Your task to perform on an android device: Open Maps and search for coffee Image 0: 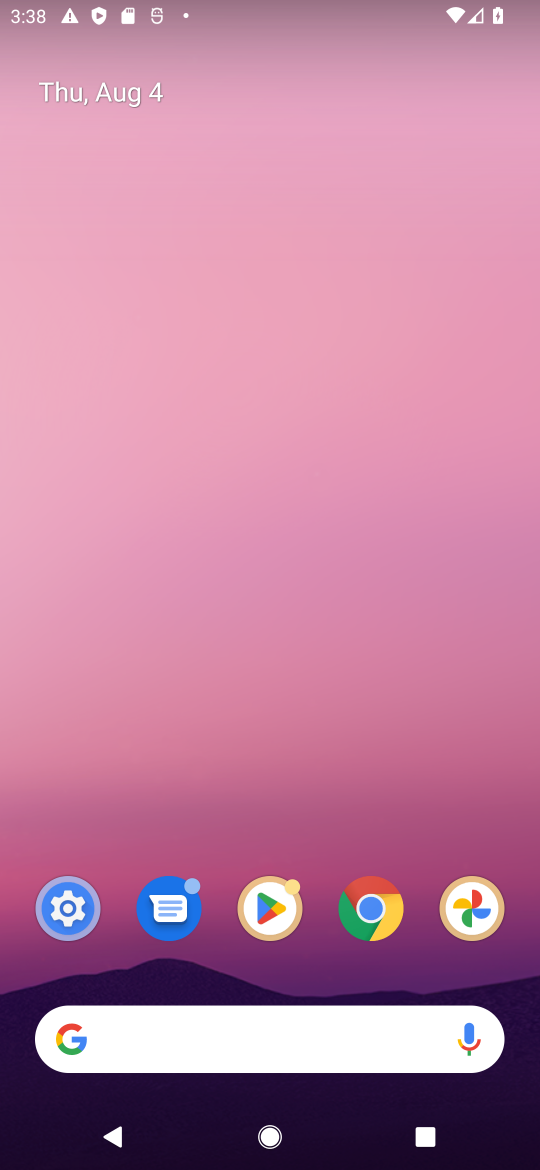
Step 0: drag from (396, 719) to (428, 176)
Your task to perform on an android device: Open Maps and search for coffee Image 1: 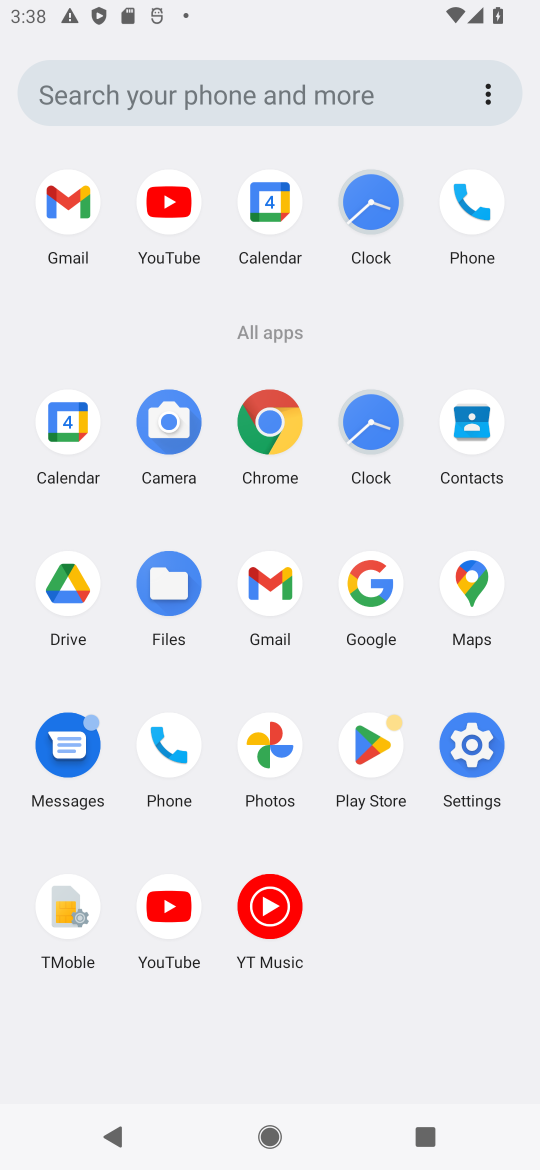
Step 1: click (470, 571)
Your task to perform on an android device: Open Maps and search for coffee Image 2: 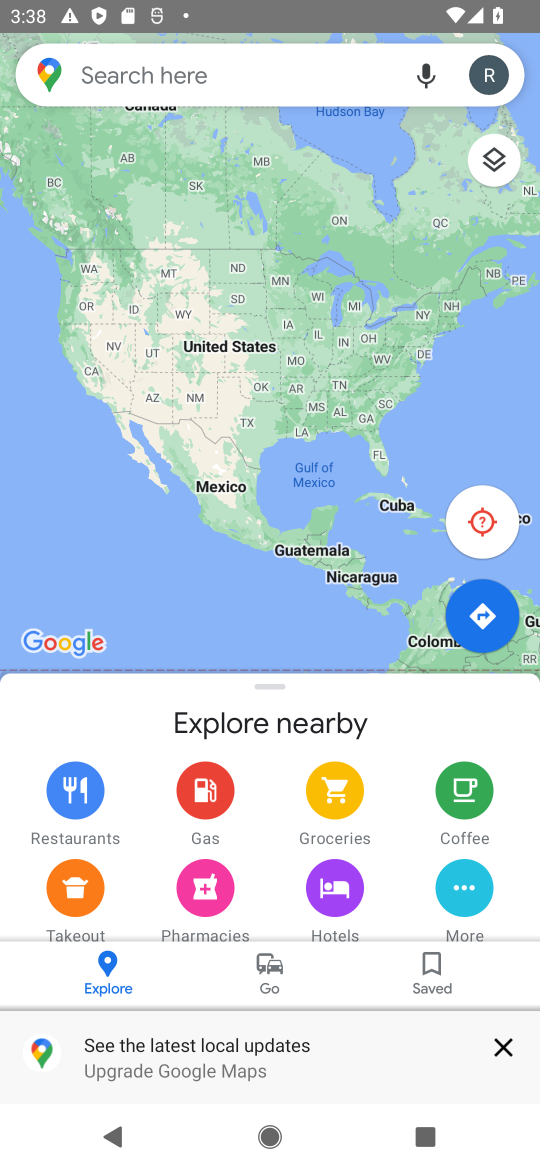
Step 2: click (178, 67)
Your task to perform on an android device: Open Maps and search for coffee Image 3: 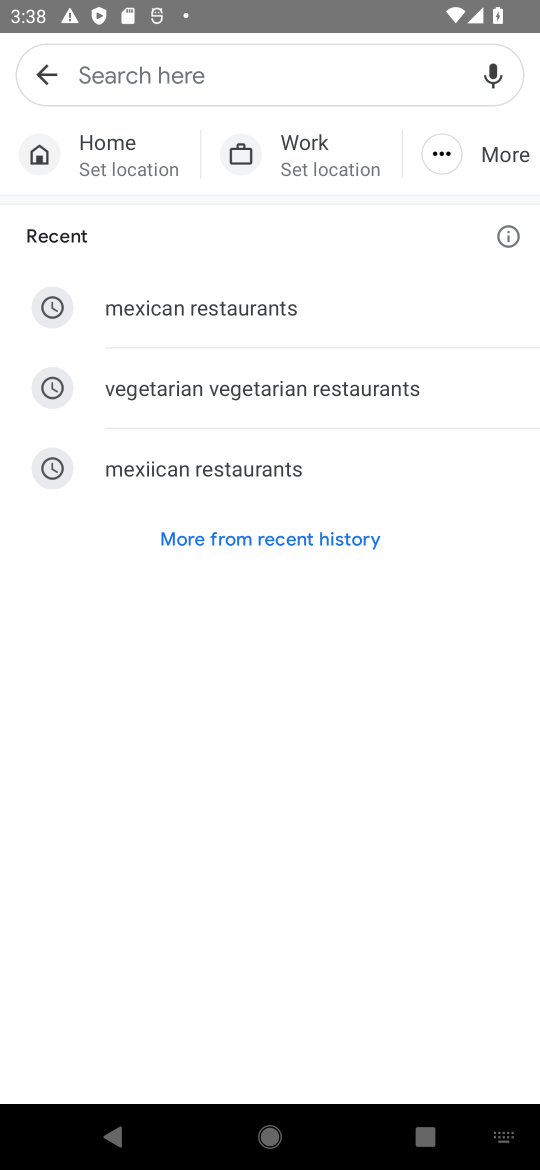
Step 3: type "coffee"
Your task to perform on an android device: Open Maps and search for coffee Image 4: 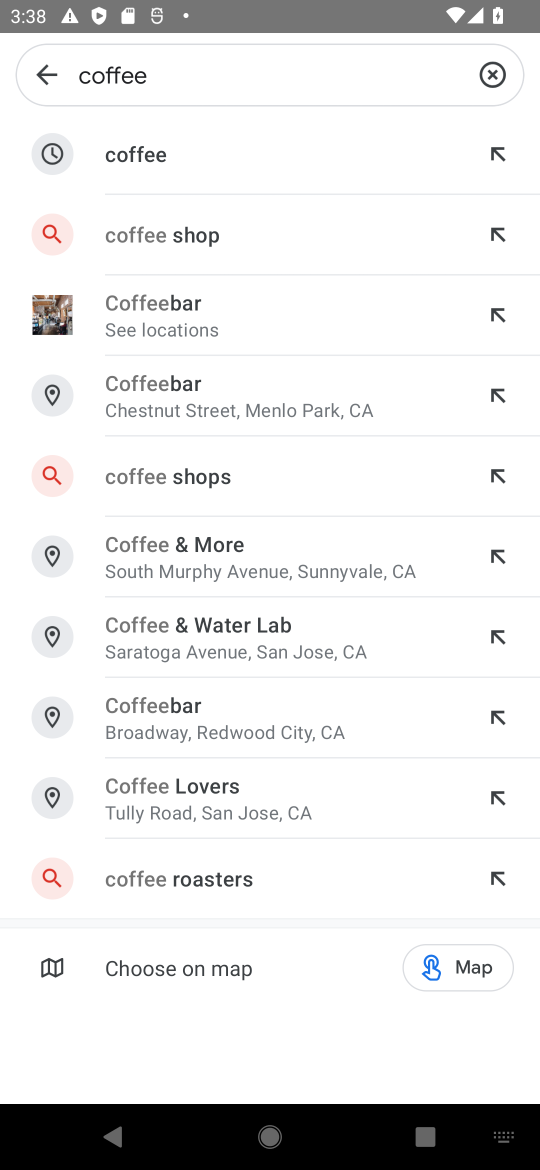
Step 4: click (252, 171)
Your task to perform on an android device: Open Maps and search for coffee Image 5: 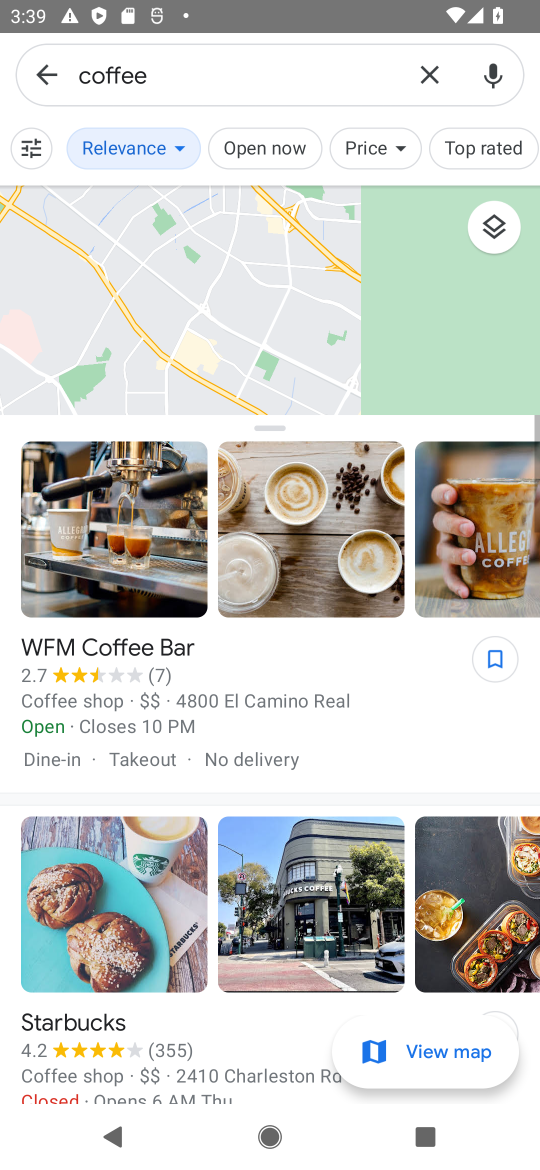
Step 5: task complete